Your task to perform on an android device: Do I have any events today? Image 0: 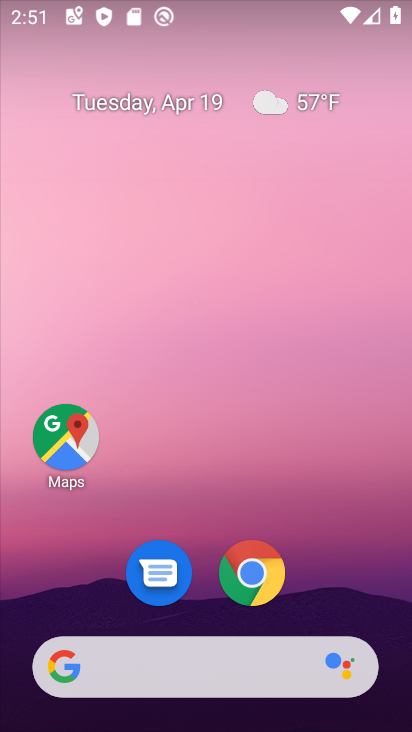
Step 0: drag from (344, 604) to (294, 50)
Your task to perform on an android device: Do I have any events today? Image 1: 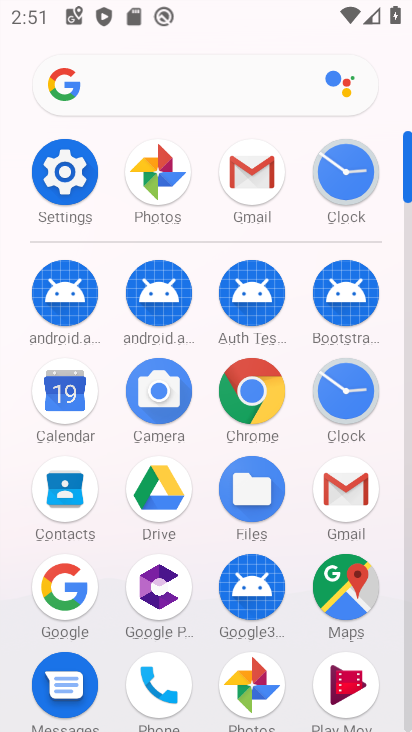
Step 1: click (73, 398)
Your task to perform on an android device: Do I have any events today? Image 2: 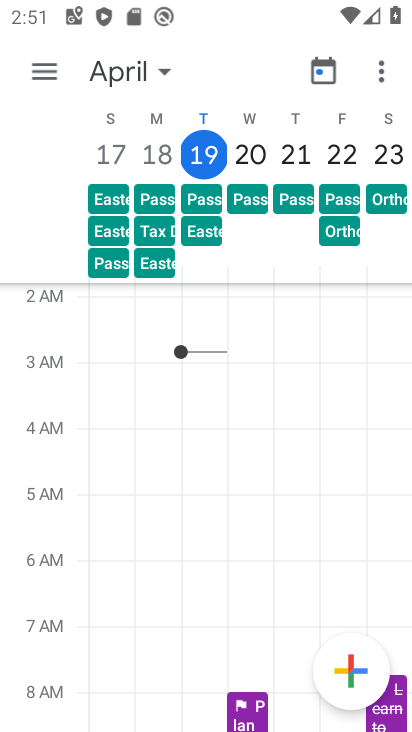
Step 2: click (163, 74)
Your task to perform on an android device: Do I have any events today? Image 3: 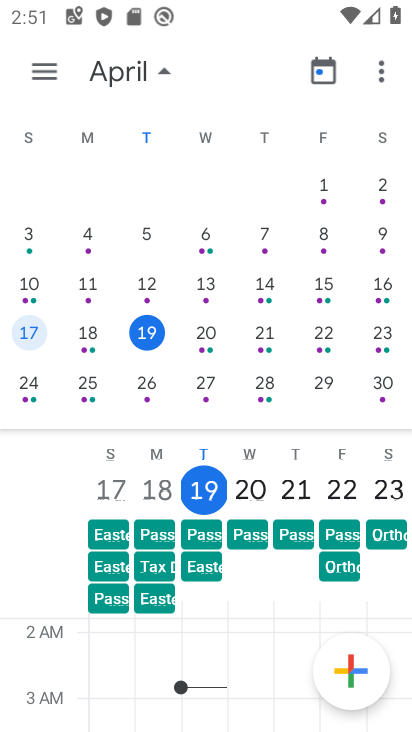
Step 3: click (151, 337)
Your task to perform on an android device: Do I have any events today? Image 4: 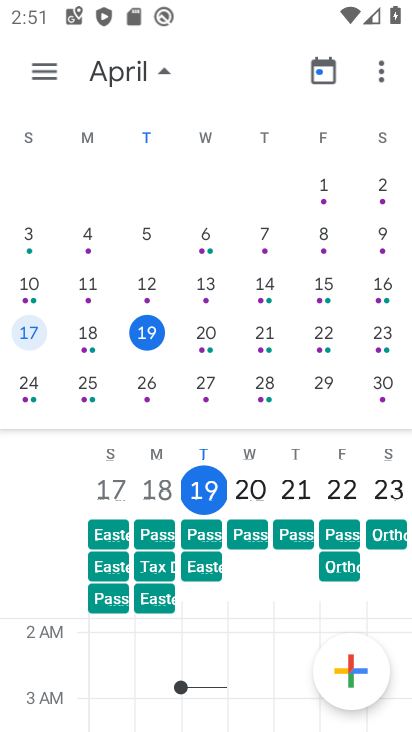
Step 4: click (35, 76)
Your task to perform on an android device: Do I have any events today? Image 5: 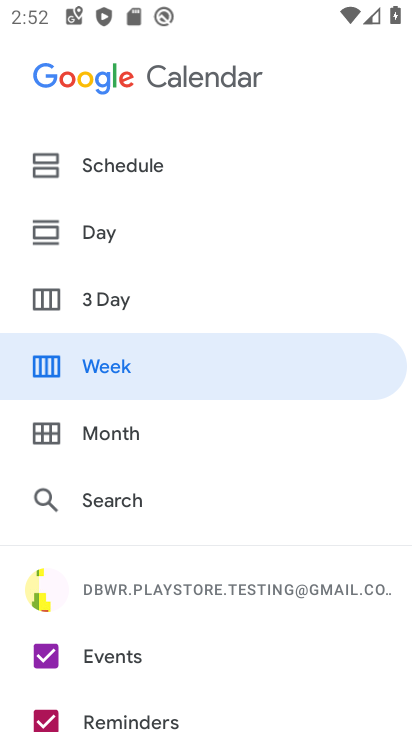
Step 5: click (76, 165)
Your task to perform on an android device: Do I have any events today? Image 6: 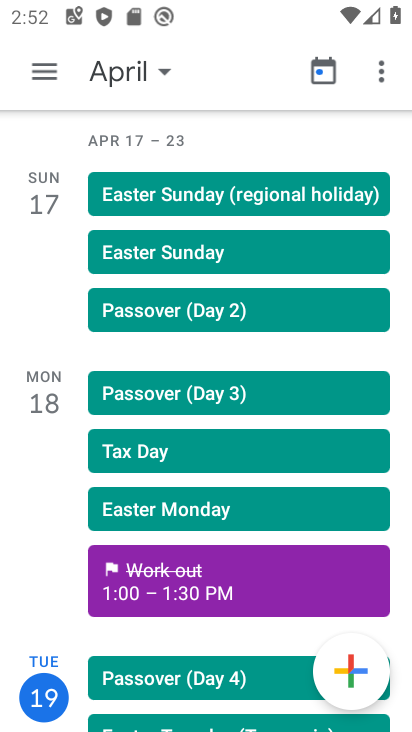
Step 6: click (165, 65)
Your task to perform on an android device: Do I have any events today? Image 7: 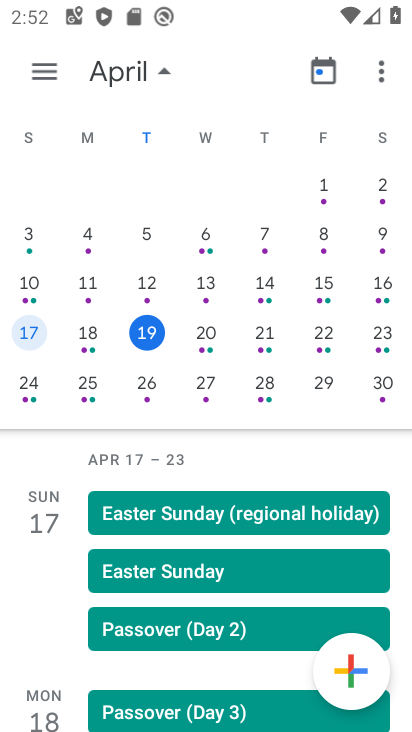
Step 7: click (138, 323)
Your task to perform on an android device: Do I have any events today? Image 8: 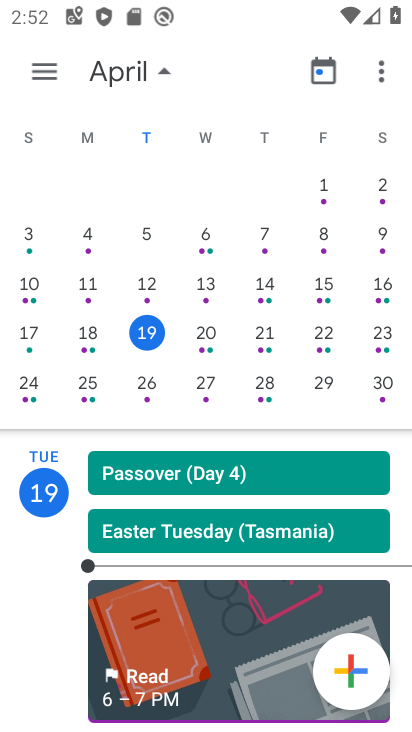
Step 8: drag from (195, 536) to (193, 232)
Your task to perform on an android device: Do I have any events today? Image 9: 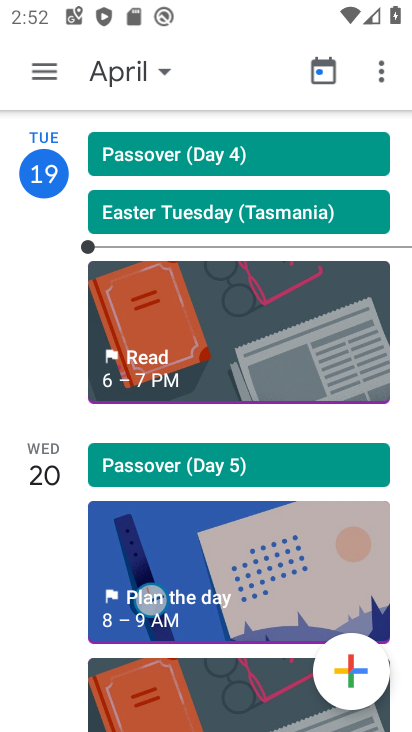
Step 9: click (175, 373)
Your task to perform on an android device: Do I have any events today? Image 10: 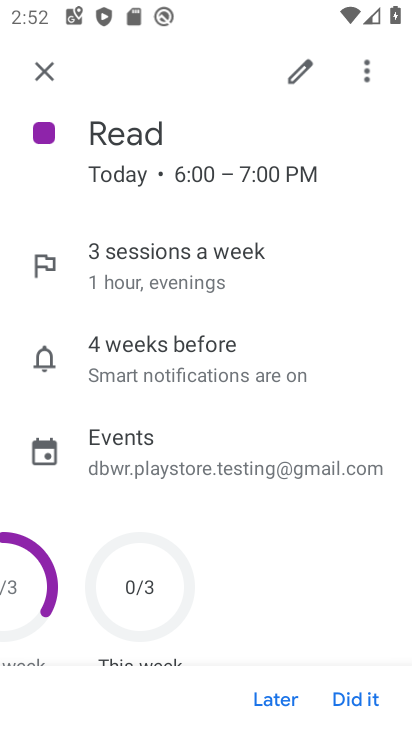
Step 10: task complete